Your task to perform on an android device: check android version Image 0: 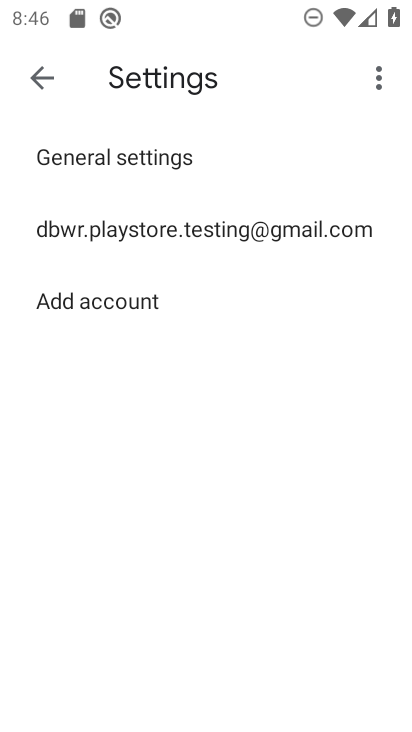
Step 0: click (43, 84)
Your task to perform on an android device: check android version Image 1: 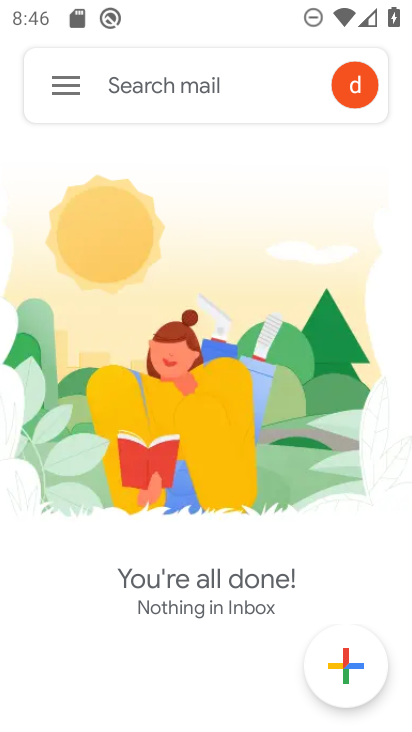
Step 1: press back button
Your task to perform on an android device: check android version Image 2: 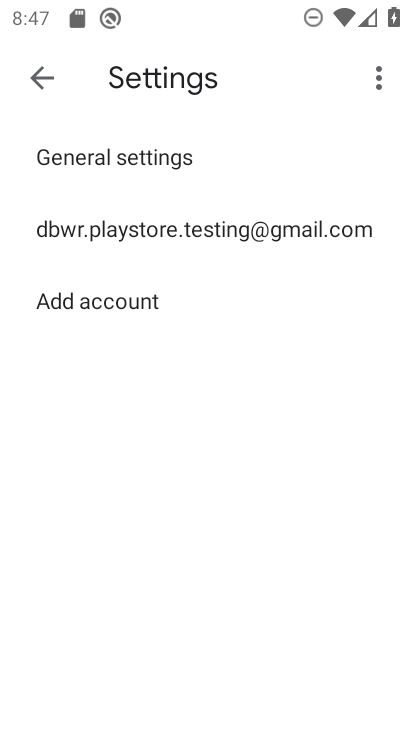
Step 2: click (29, 71)
Your task to perform on an android device: check android version Image 3: 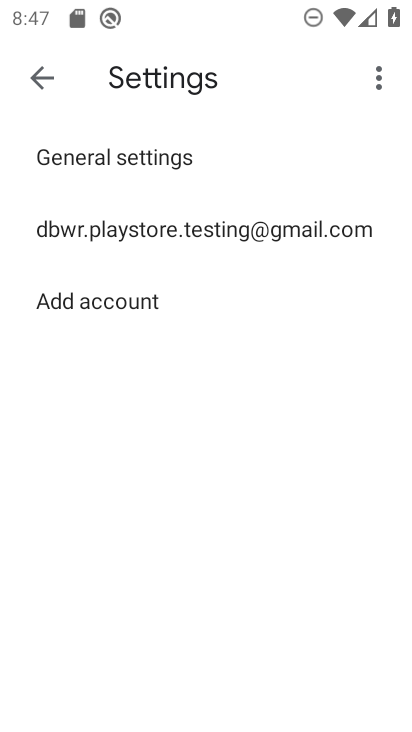
Step 3: click (39, 79)
Your task to perform on an android device: check android version Image 4: 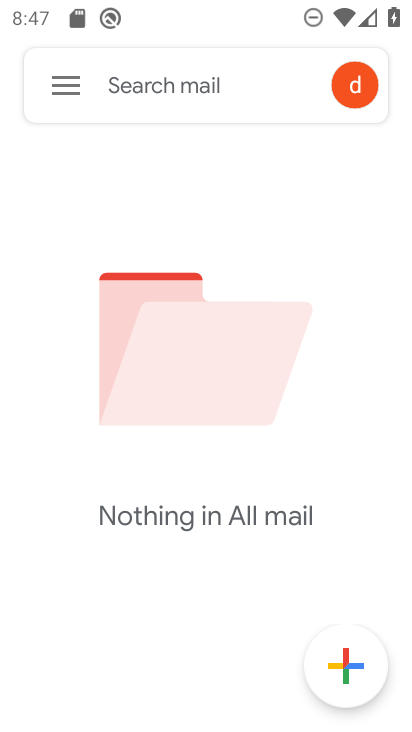
Step 4: press home button
Your task to perform on an android device: check android version Image 5: 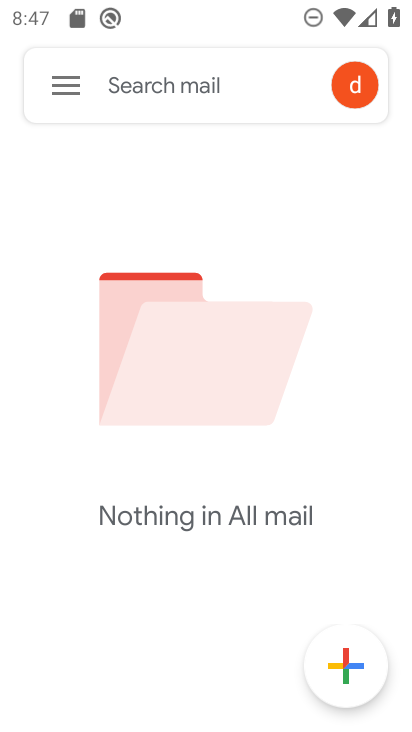
Step 5: press home button
Your task to perform on an android device: check android version Image 6: 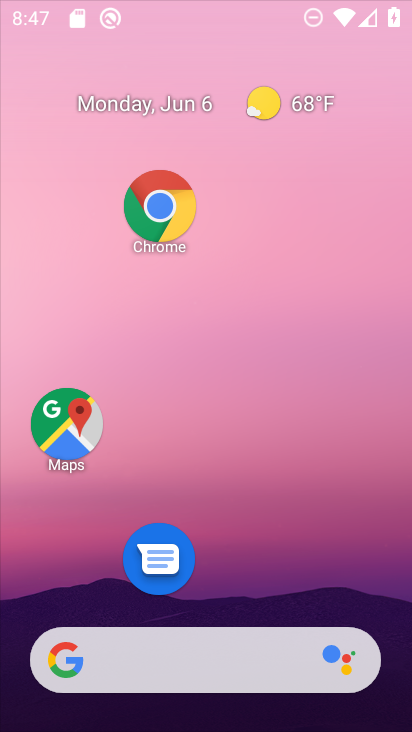
Step 6: press home button
Your task to perform on an android device: check android version Image 7: 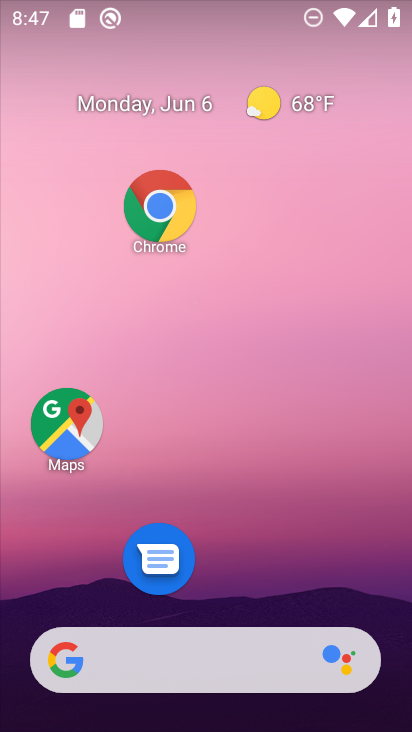
Step 7: drag from (236, 457) to (190, 70)
Your task to perform on an android device: check android version Image 8: 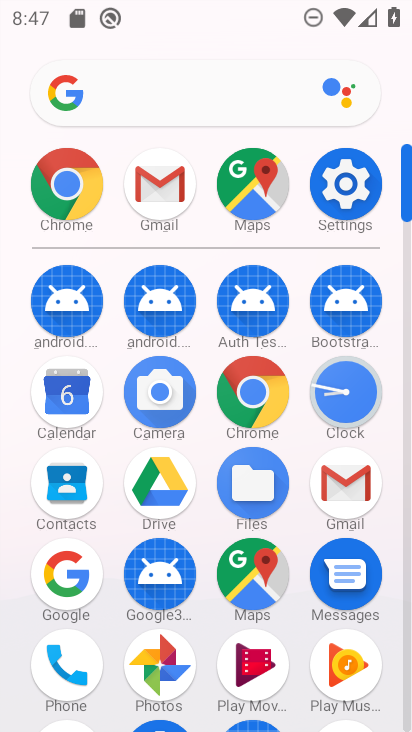
Step 8: click (357, 185)
Your task to perform on an android device: check android version Image 9: 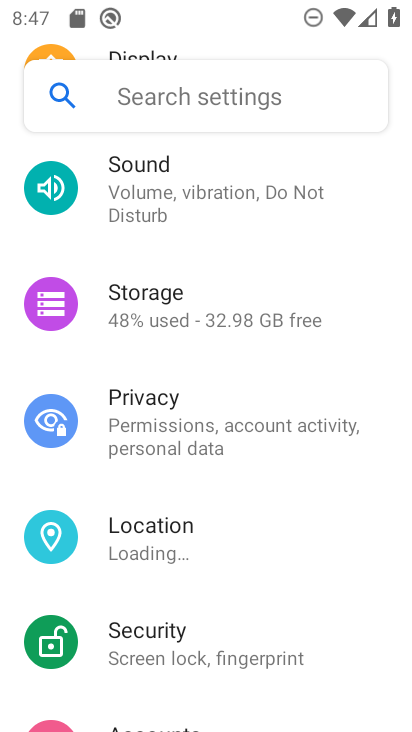
Step 9: drag from (181, 528) to (219, 285)
Your task to perform on an android device: check android version Image 10: 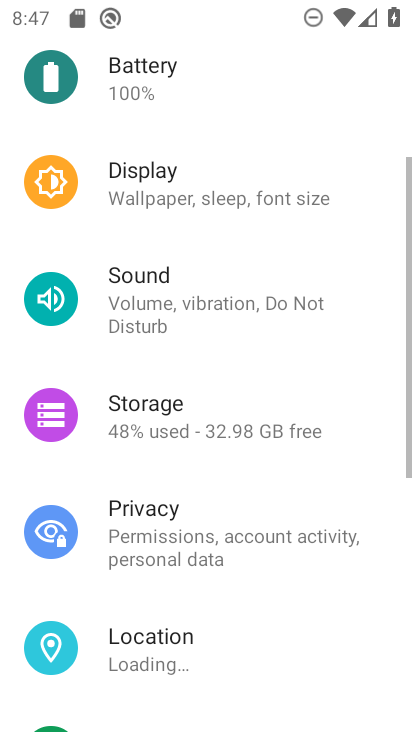
Step 10: drag from (247, 513) to (243, 227)
Your task to perform on an android device: check android version Image 11: 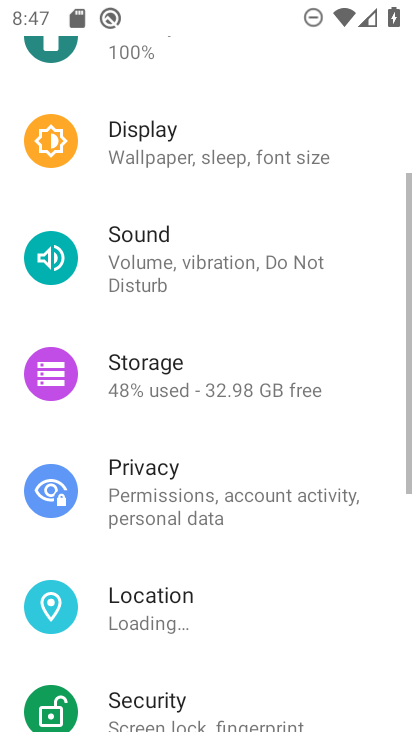
Step 11: drag from (258, 505) to (212, 251)
Your task to perform on an android device: check android version Image 12: 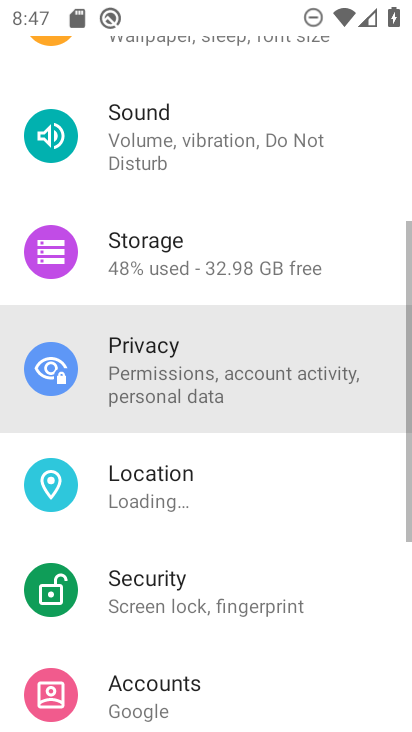
Step 12: click (191, 319)
Your task to perform on an android device: check android version Image 13: 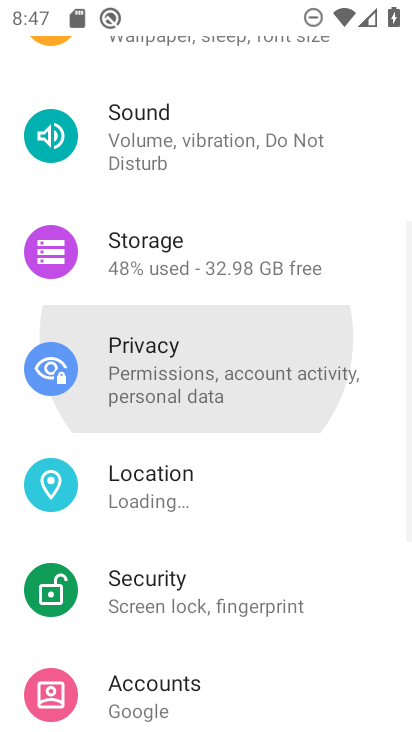
Step 13: drag from (231, 560) to (216, 276)
Your task to perform on an android device: check android version Image 14: 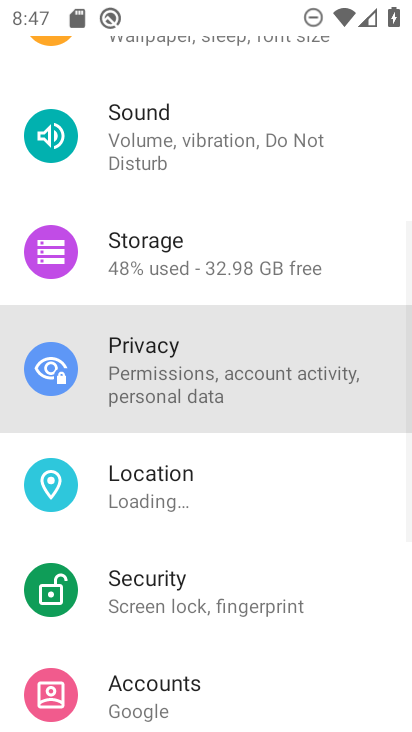
Step 14: drag from (250, 587) to (232, 296)
Your task to perform on an android device: check android version Image 15: 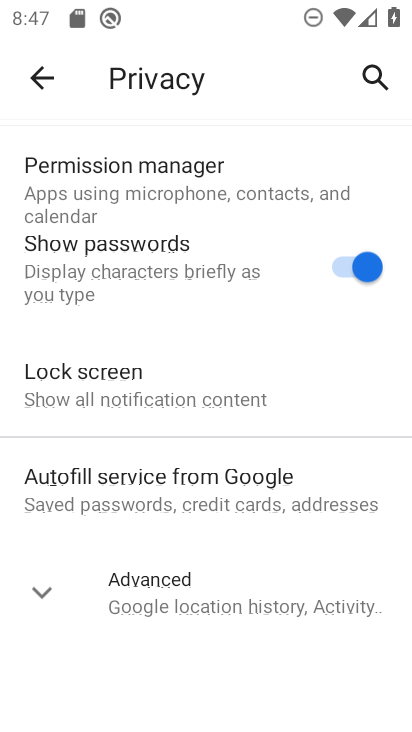
Step 15: drag from (301, 467) to (267, 229)
Your task to perform on an android device: check android version Image 16: 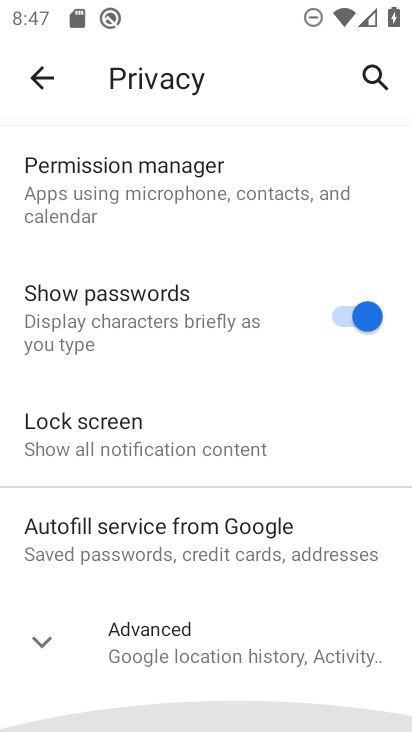
Step 16: drag from (236, 474) to (236, 219)
Your task to perform on an android device: check android version Image 17: 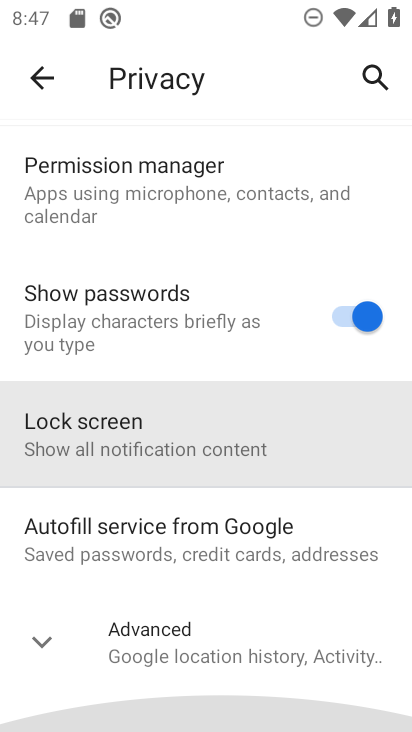
Step 17: drag from (194, 583) to (169, 277)
Your task to perform on an android device: check android version Image 18: 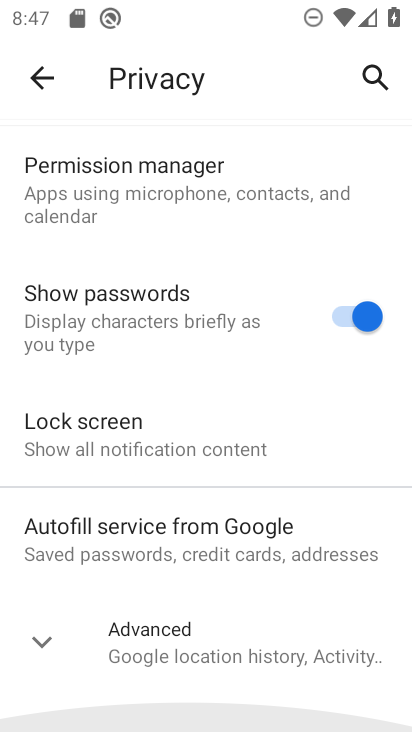
Step 18: drag from (196, 674) to (172, 361)
Your task to perform on an android device: check android version Image 19: 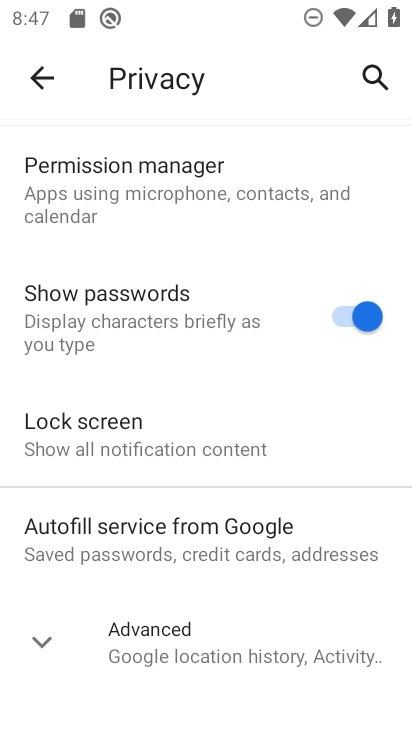
Step 19: click (49, 78)
Your task to perform on an android device: check android version Image 20: 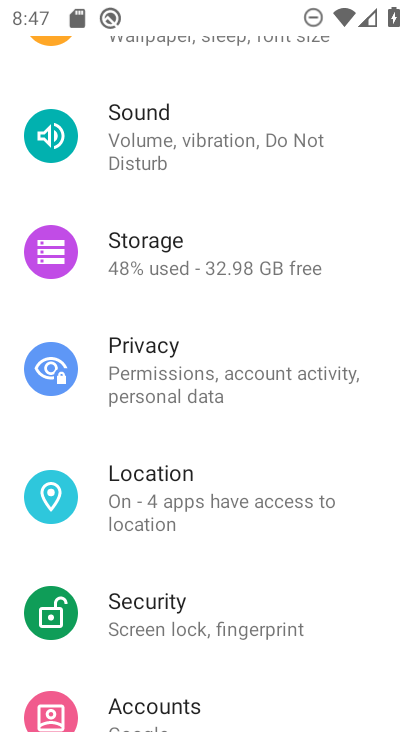
Step 20: drag from (251, 566) to (175, 110)
Your task to perform on an android device: check android version Image 21: 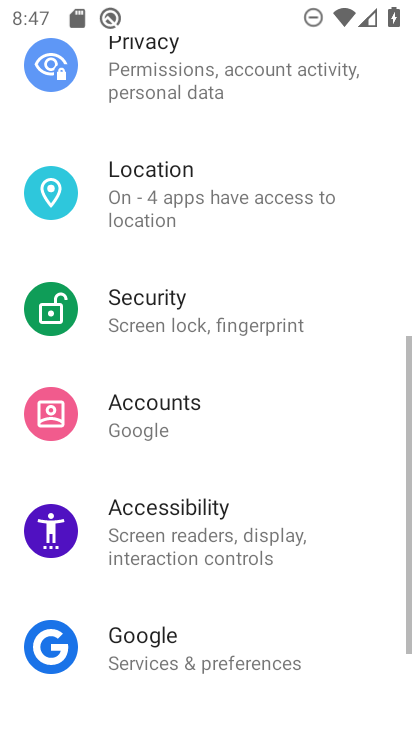
Step 21: drag from (270, 541) to (230, 202)
Your task to perform on an android device: check android version Image 22: 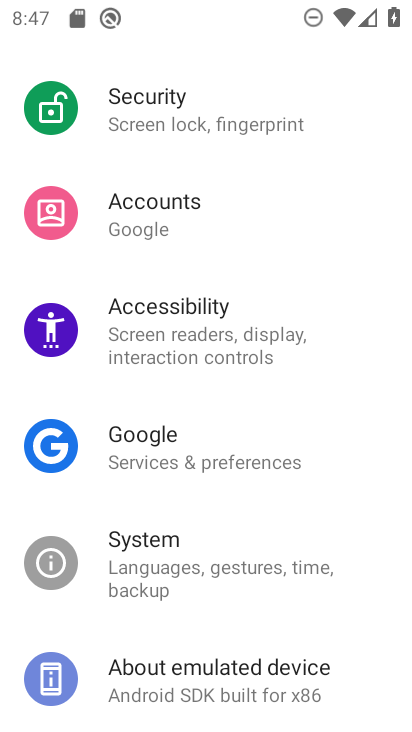
Step 22: click (202, 670)
Your task to perform on an android device: check android version Image 23: 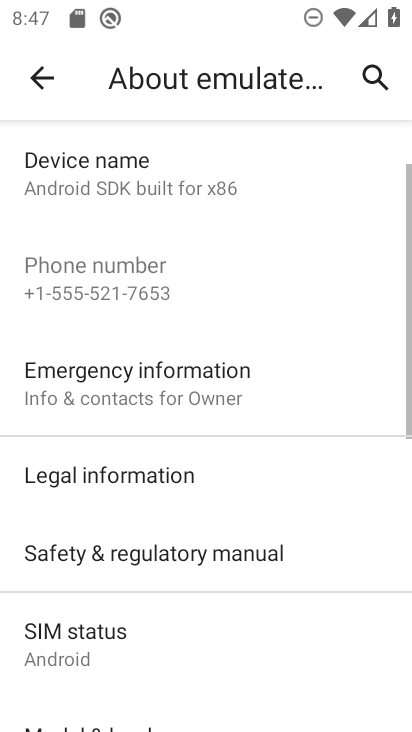
Step 23: task complete